Your task to perform on an android device: turn on wifi Image 0: 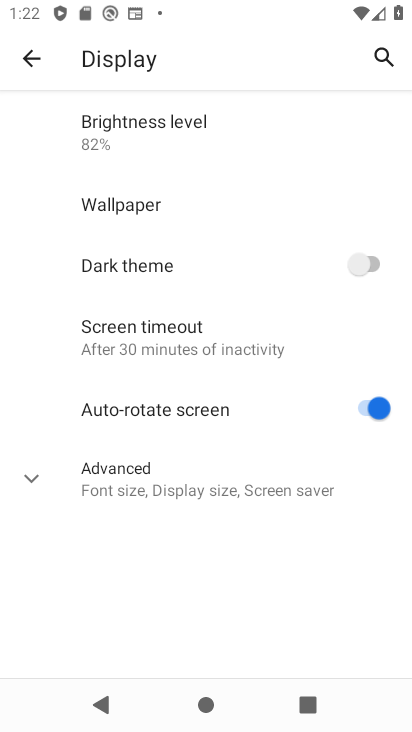
Step 0: press home button
Your task to perform on an android device: turn on wifi Image 1: 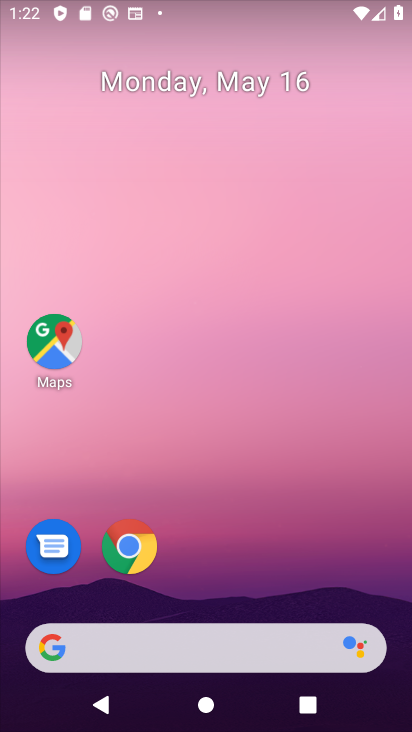
Step 1: drag from (149, 590) to (251, 110)
Your task to perform on an android device: turn on wifi Image 2: 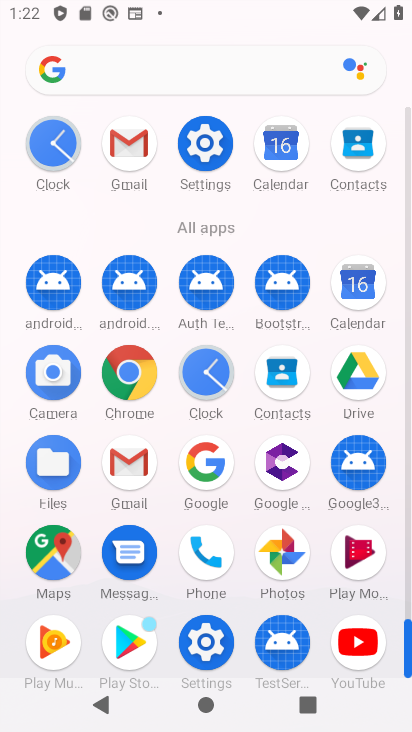
Step 2: click (209, 138)
Your task to perform on an android device: turn on wifi Image 3: 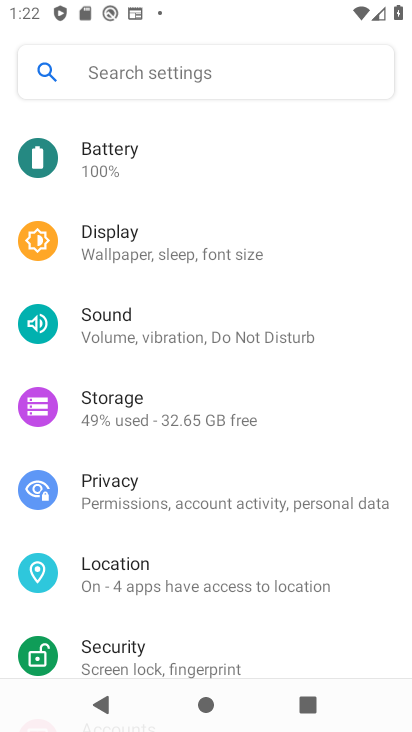
Step 3: drag from (252, 153) to (304, 477)
Your task to perform on an android device: turn on wifi Image 4: 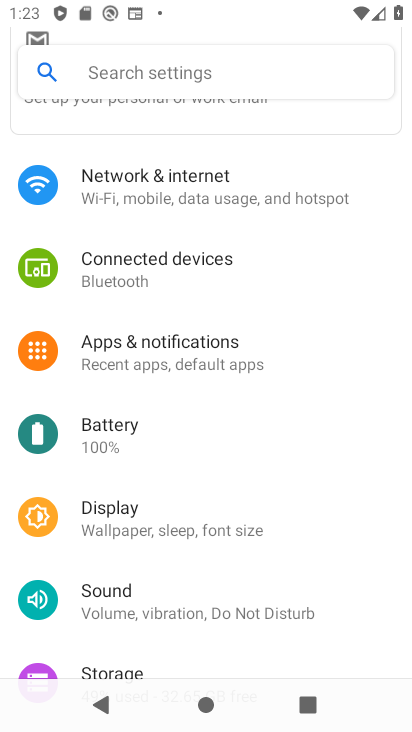
Step 4: drag from (183, 184) to (197, 540)
Your task to perform on an android device: turn on wifi Image 5: 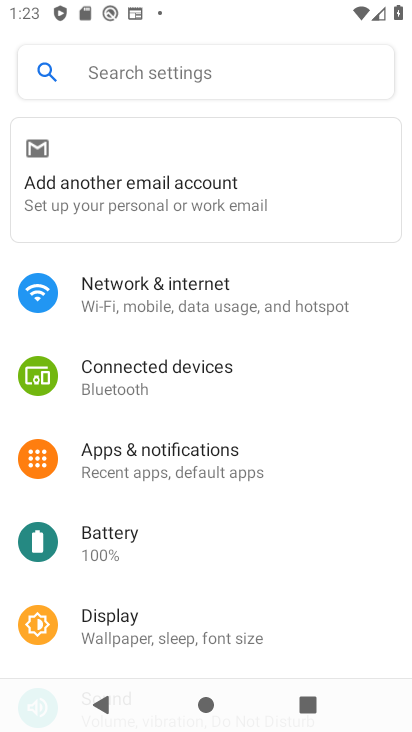
Step 5: click (171, 285)
Your task to perform on an android device: turn on wifi Image 6: 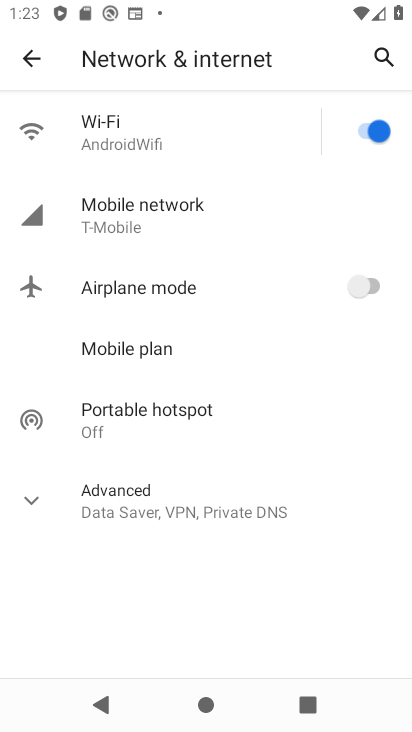
Step 6: task complete